Your task to perform on an android device: Go to Yahoo.com Image 0: 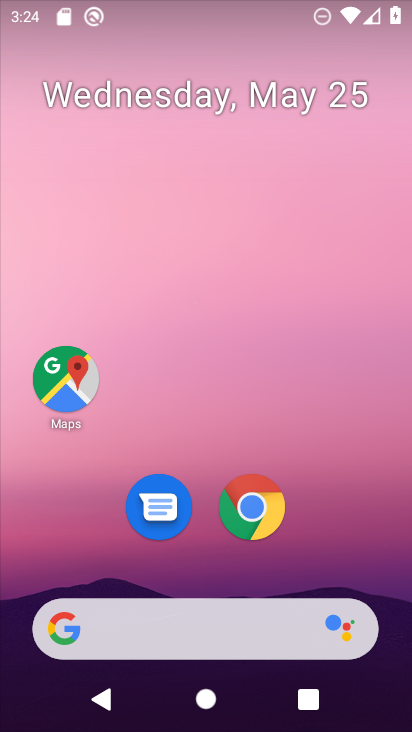
Step 0: click (243, 521)
Your task to perform on an android device: Go to Yahoo.com Image 1: 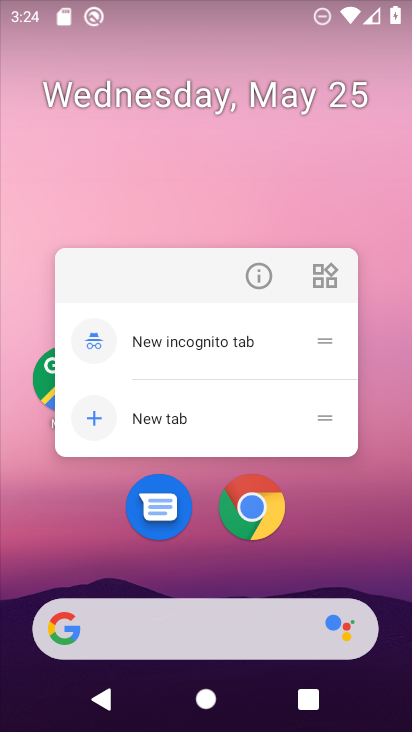
Step 1: click (243, 521)
Your task to perform on an android device: Go to Yahoo.com Image 2: 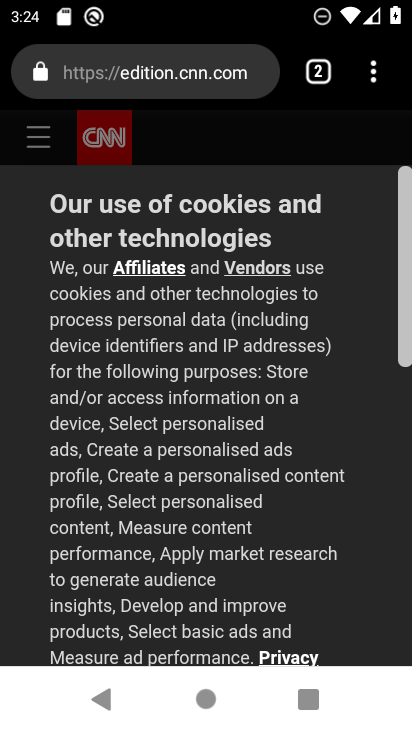
Step 2: click (213, 82)
Your task to perform on an android device: Go to Yahoo.com Image 3: 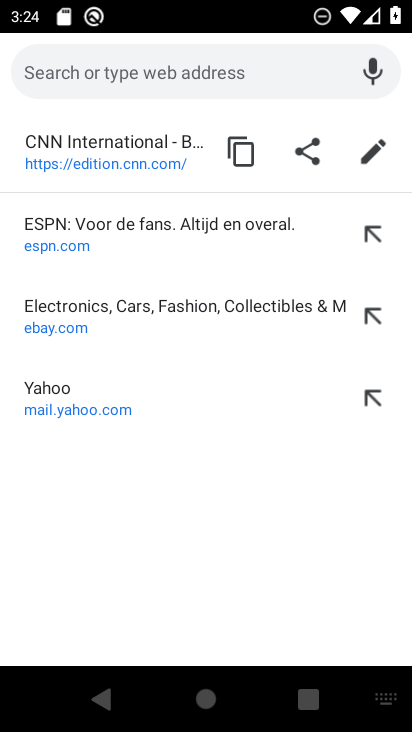
Step 3: click (157, 406)
Your task to perform on an android device: Go to Yahoo.com Image 4: 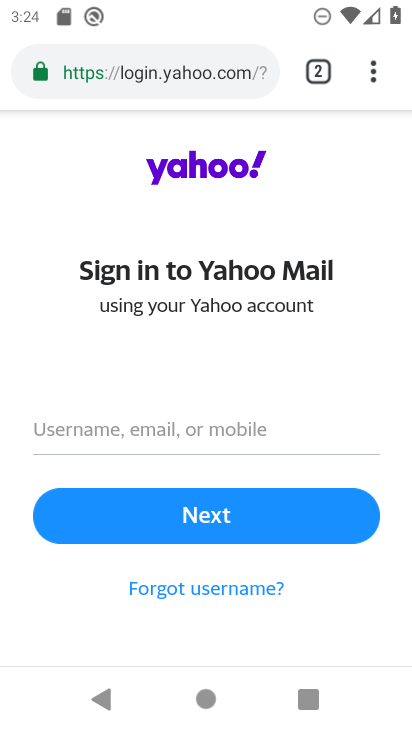
Step 4: task complete